Your task to perform on an android device: star an email in the gmail app Image 0: 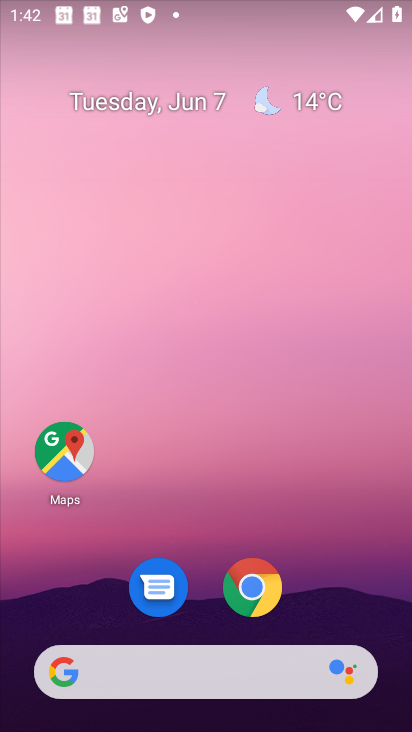
Step 0: drag from (267, 640) to (225, 194)
Your task to perform on an android device: star an email in the gmail app Image 1: 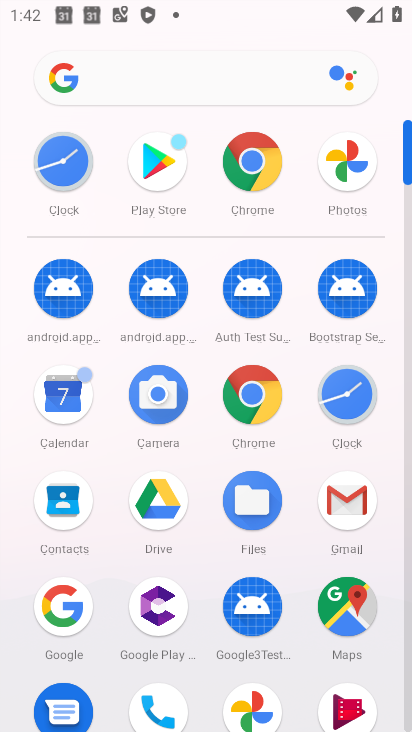
Step 1: click (334, 502)
Your task to perform on an android device: star an email in the gmail app Image 2: 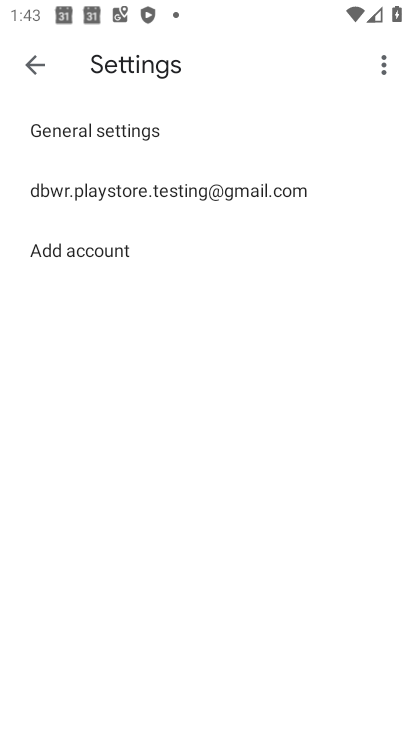
Step 2: click (49, 59)
Your task to perform on an android device: star an email in the gmail app Image 3: 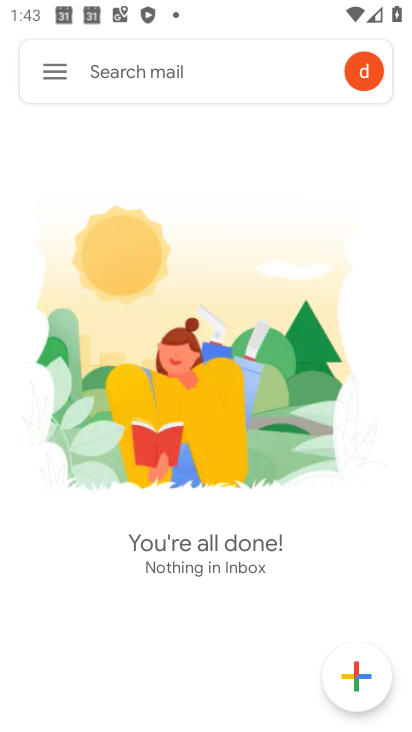
Step 3: click (68, 70)
Your task to perform on an android device: star an email in the gmail app Image 4: 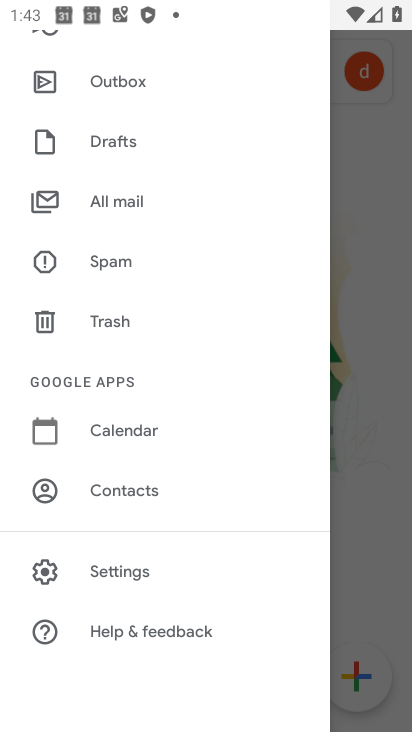
Step 4: click (141, 207)
Your task to perform on an android device: star an email in the gmail app Image 5: 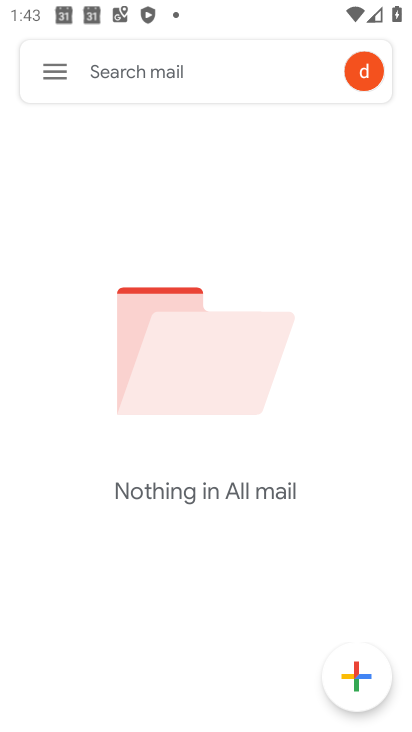
Step 5: task complete